Your task to perform on an android device: change the upload size in google photos Image 0: 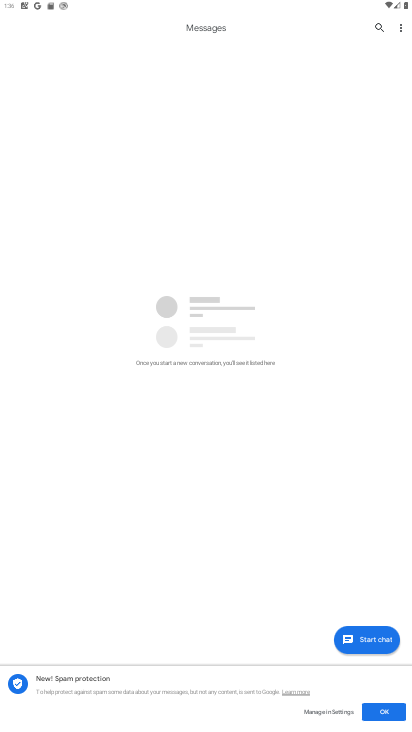
Step 0: press home button
Your task to perform on an android device: change the upload size in google photos Image 1: 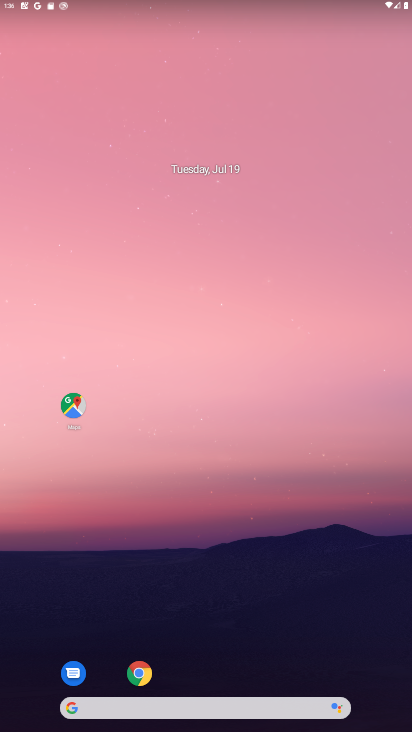
Step 1: drag from (255, 695) to (348, 40)
Your task to perform on an android device: change the upload size in google photos Image 2: 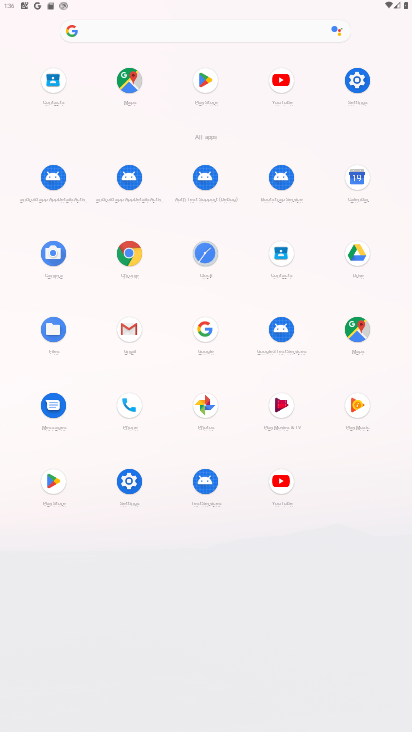
Step 2: click (207, 400)
Your task to perform on an android device: change the upload size in google photos Image 3: 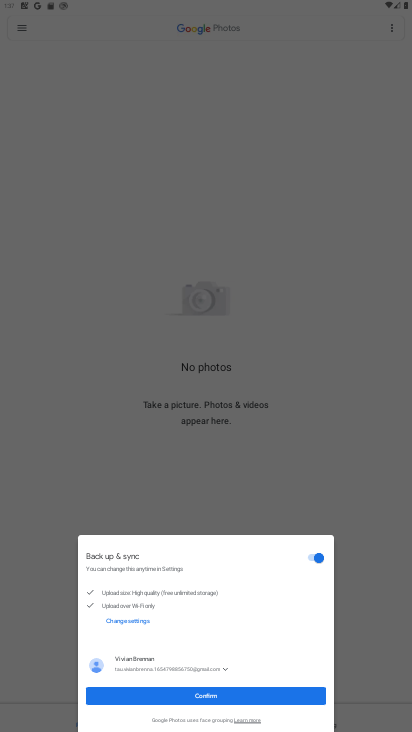
Step 3: click (223, 697)
Your task to perform on an android device: change the upload size in google photos Image 4: 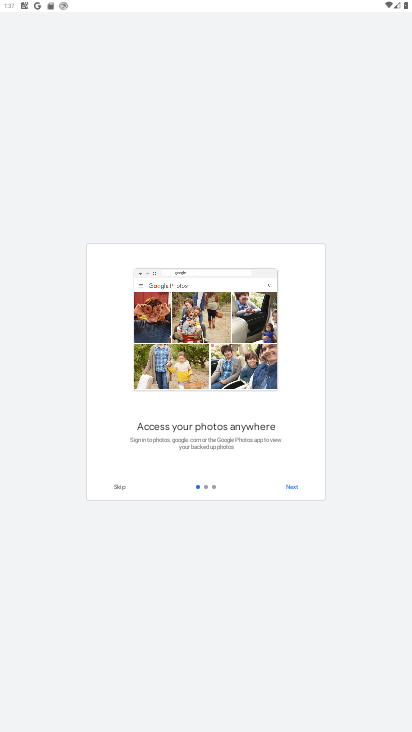
Step 4: click (296, 485)
Your task to perform on an android device: change the upload size in google photos Image 5: 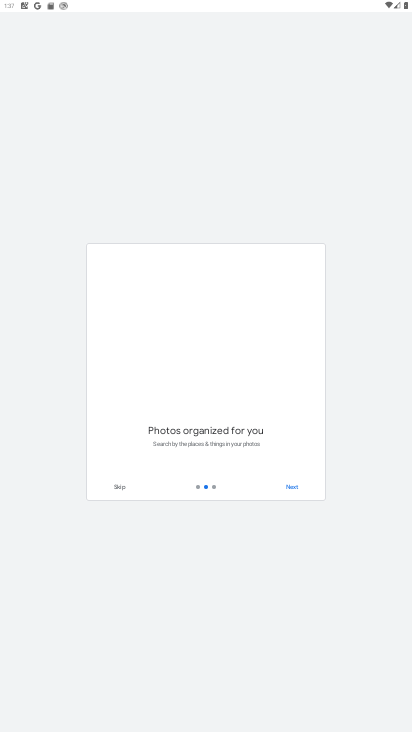
Step 5: click (296, 485)
Your task to perform on an android device: change the upload size in google photos Image 6: 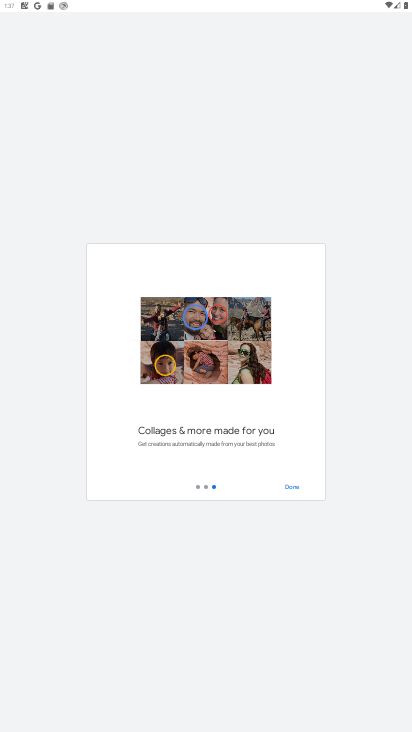
Step 6: click (296, 485)
Your task to perform on an android device: change the upload size in google photos Image 7: 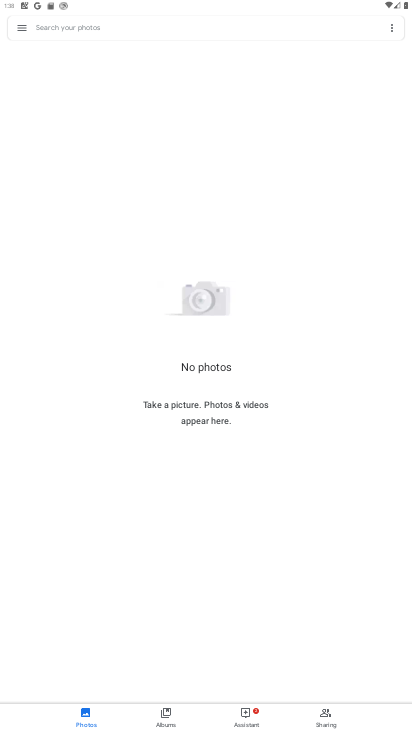
Step 7: click (20, 28)
Your task to perform on an android device: change the upload size in google photos Image 8: 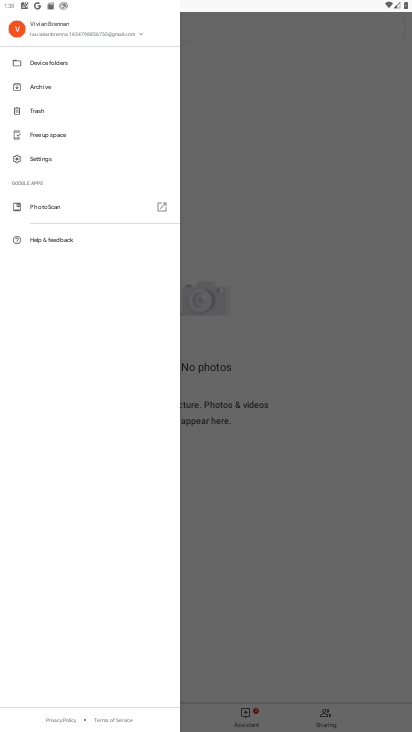
Step 8: click (67, 160)
Your task to perform on an android device: change the upload size in google photos Image 9: 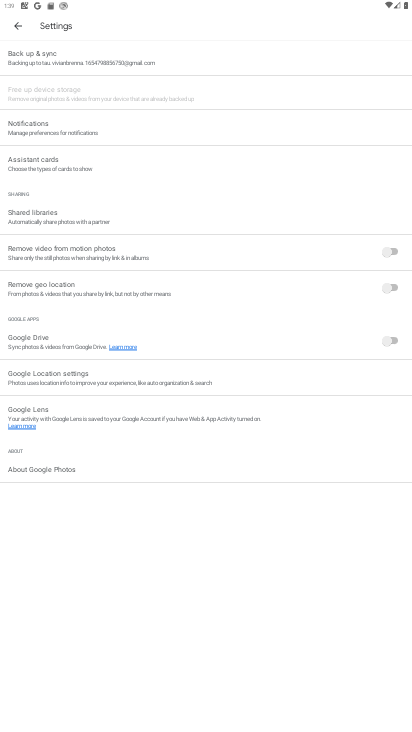
Step 9: click (175, 58)
Your task to perform on an android device: change the upload size in google photos Image 10: 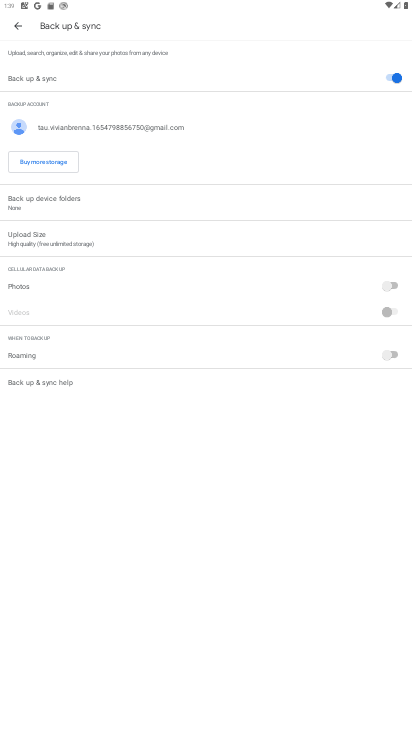
Step 10: click (83, 242)
Your task to perform on an android device: change the upload size in google photos Image 11: 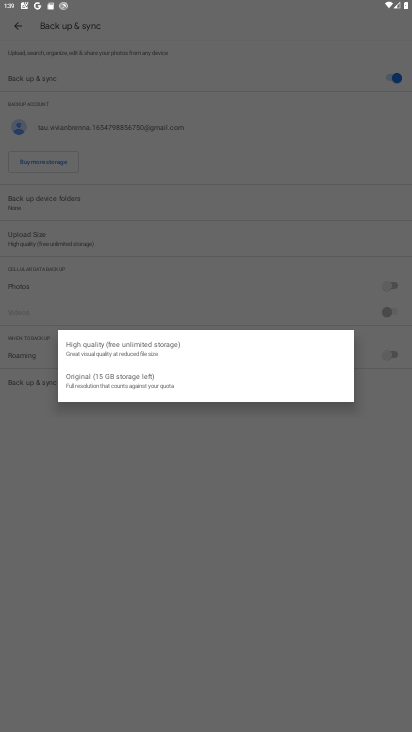
Step 11: click (122, 381)
Your task to perform on an android device: change the upload size in google photos Image 12: 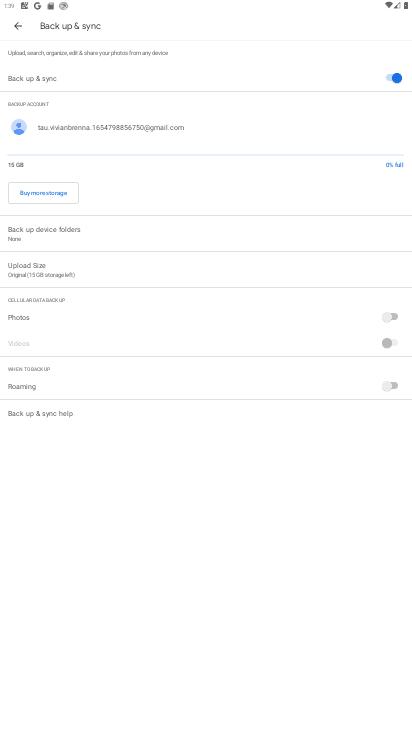
Step 12: task complete